Your task to perform on an android device: Open Reddit Image 0: 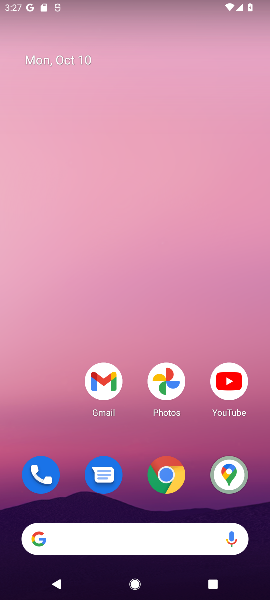
Step 0: drag from (150, 568) to (187, 239)
Your task to perform on an android device: Open Reddit Image 1: 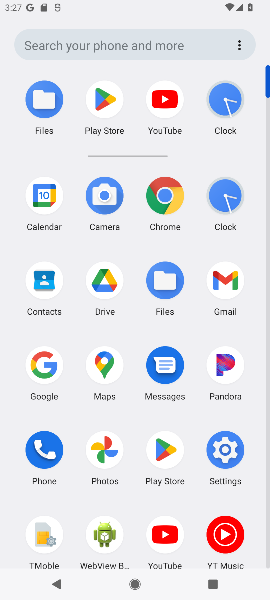
Step 1: task complete